Your task to perform on an android device: change the clock display to analog Image 0: 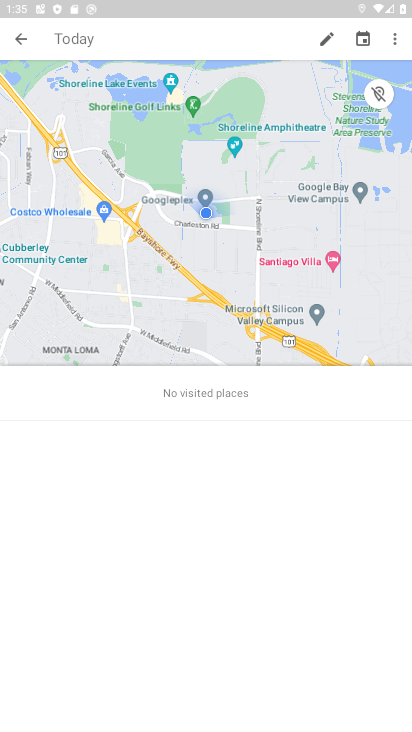
Step 0: press home button
Your task to perform on an android device: change the clock display to analog Image 1: 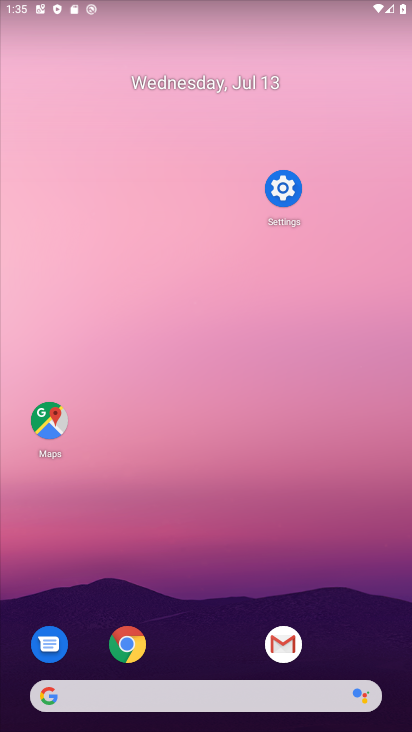
Step 1: drag from (239, 706) to (295, 222)
Your task to perform on an android device: change the clock display to analog Image 2: 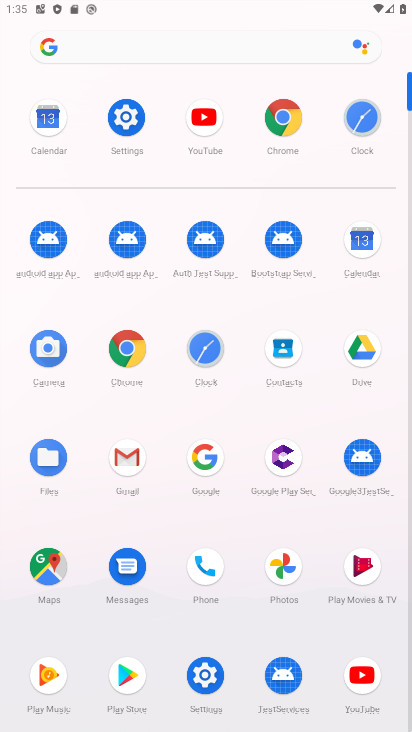
Step 2: click (360, 121)
Your task to perform on an android device: change the clock display to analog Image 3: 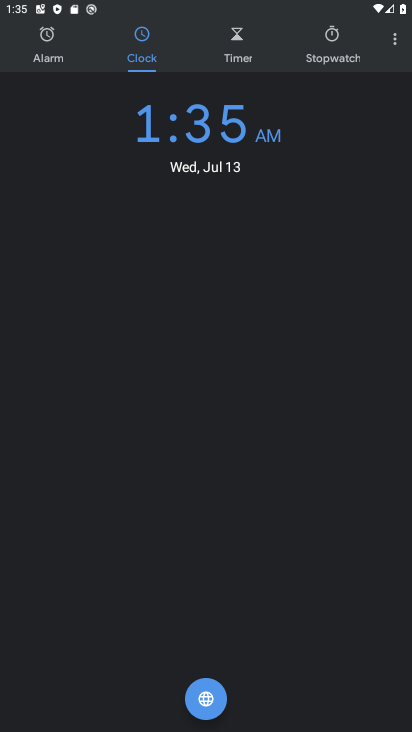
Step 3: click (391, 46)
Your task to perform on an android device: change the clock display to analog Image 4: 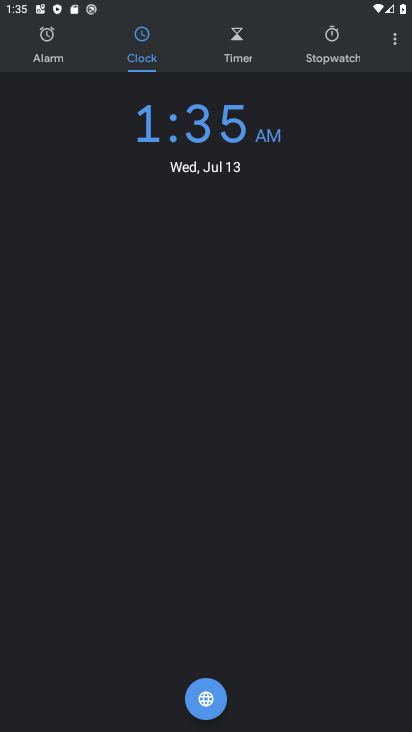
Step 4: click (397, 40)
Your task to perform on an android device: change the clock display to analog Image 5: 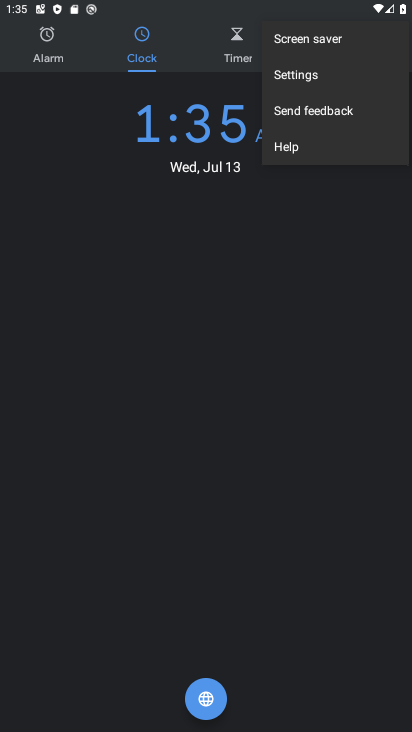
Step 5: click (318, 73)
Your task to perform on an android device: change the clock display to analog Image 6: 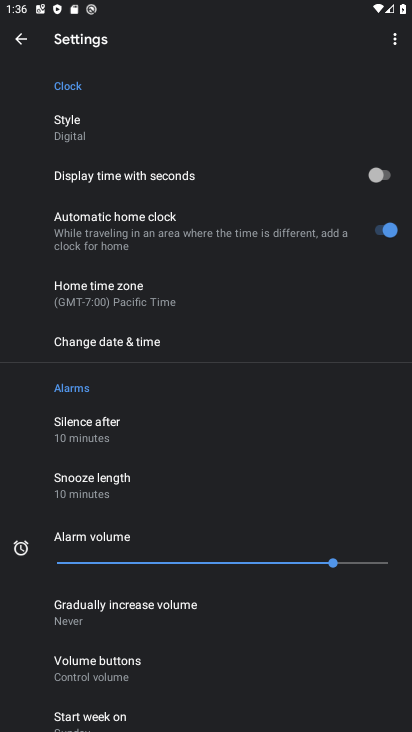
Step 6: click (140, 125)
Your task to perform on an android device: change the clock display to analog Image 7: 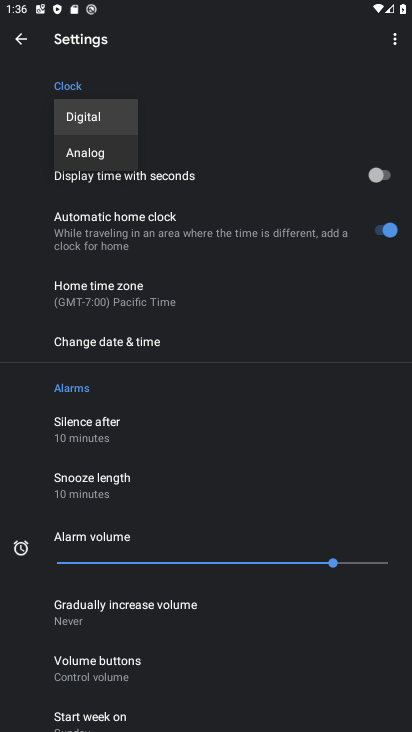
Step 7: click (92, 157)
Your task to perform on an android device: change the clock display to analog Image 8: 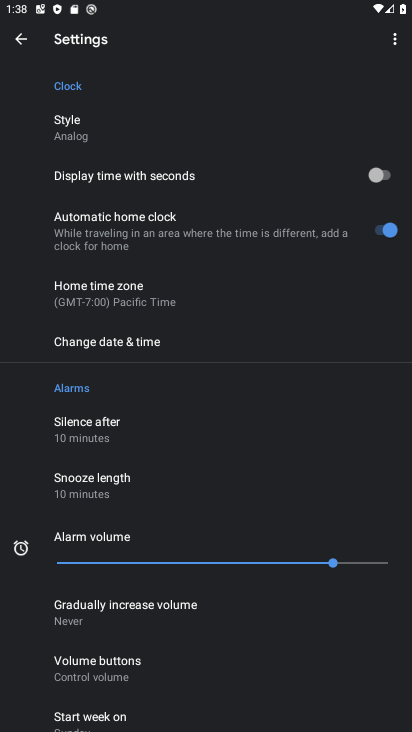
Step 8: task complete